Your task to perform on an android device: When is my next meeting? Image 0: 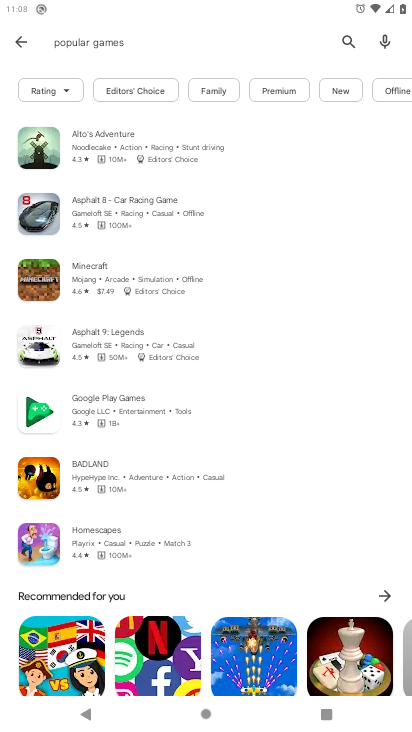
Step 0: press home button
Your task to perform on an android device: When is my next meeting? Image 1: 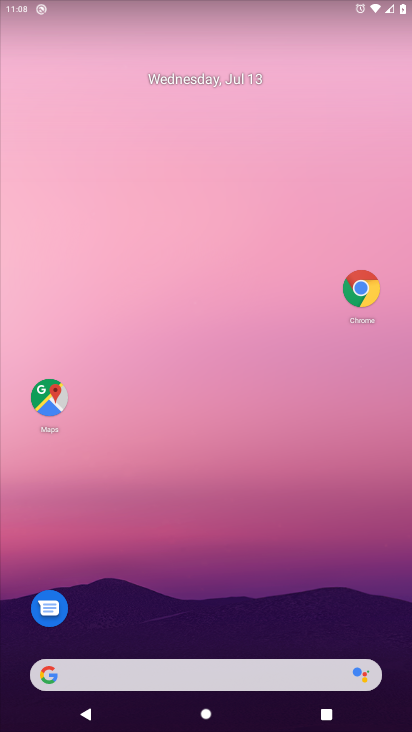
Step 1: drag from (36, 703) to (399, 2)
Your task to perform on an android device: When is my next meeting? Image 2: 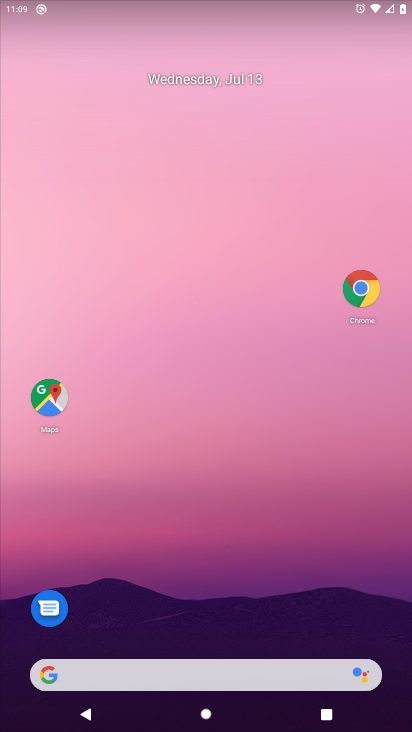
Step 2: drag from (24, 693) to (260, 90)
Your task to perform on an android device: When is my next meeting? Image 3: 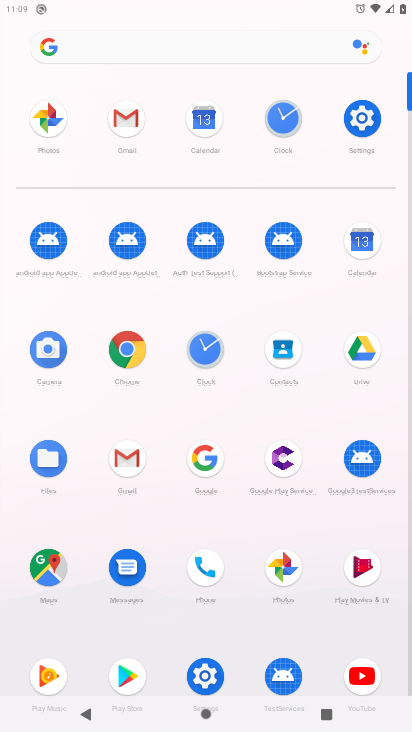
Step 3: click (370, 252)
Your task to perform on an android device: When is my next meeting? Image 4: 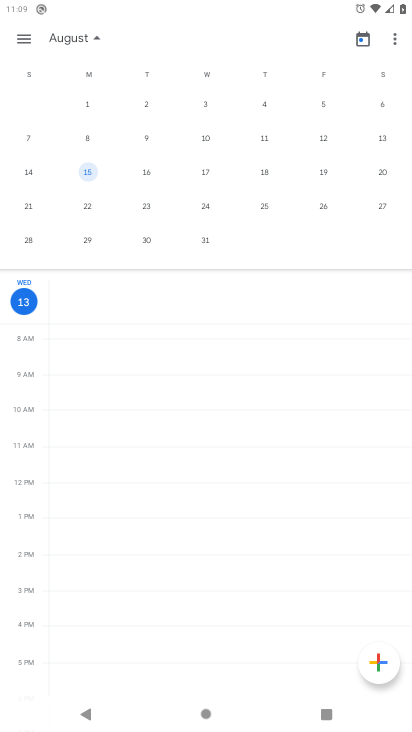
Step 4: task complete